Your task to perform on an android device: turn off improve location accuracy Image 0: 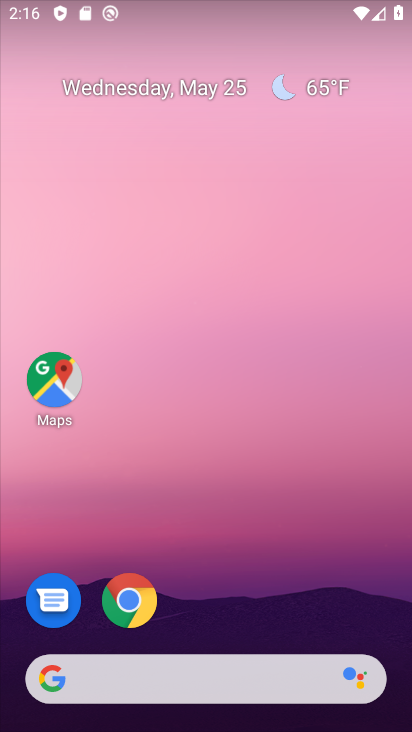
Step 0: drag from (286, 568) to (242, 186)
Your task to perform on an android device: turn off improve location accuracy Image 1: 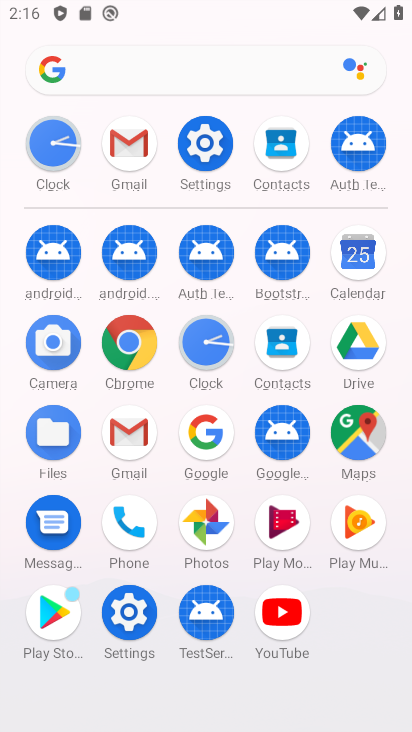
Step 1: click (131, 608)
Your task to perform on an android device: turn off improve location accuracy Image 2: 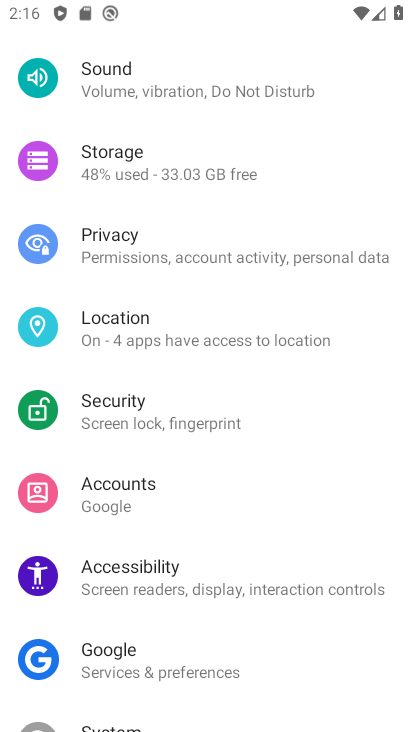
Step 2: drag from (130, 600) to (178, 216)
Your task to perform on an android device: turn off improve location accuracy Image 3: 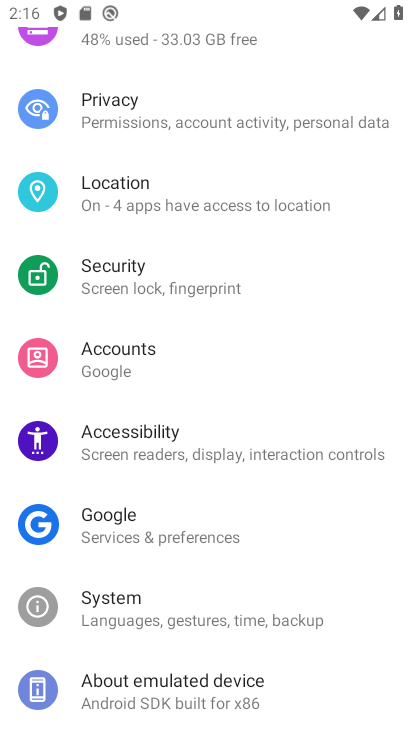
Step 3: drag from (206, 345) to (241, 637)
Your task to perform on an android device: turn off improve location accuracy Image 4: 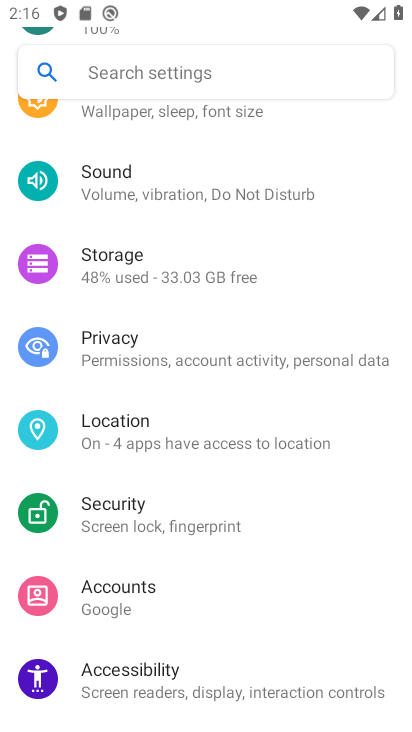
Step 4: drag from (192, 397) to (172, 521)
Your task to perform on an android device: turn off improve location accuracy Image 5: 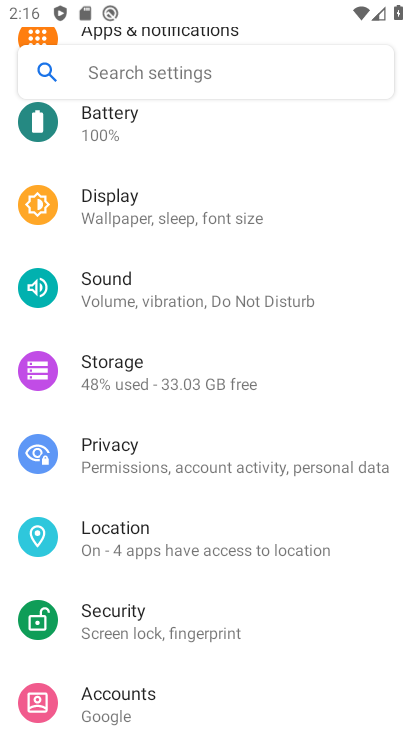
Step 5: click (177, 546)
Your task to perform on an android device: turn off improve location accuracy Image 6: 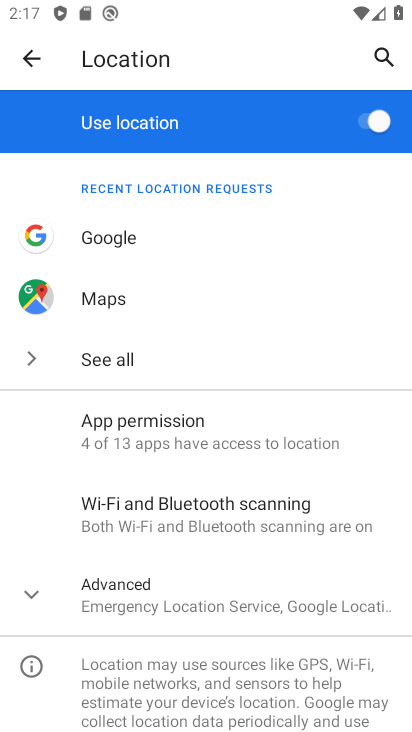
Step 6: click (146, 602)
Your task to perform on an android device: turn off improve location accuracy Image 7: 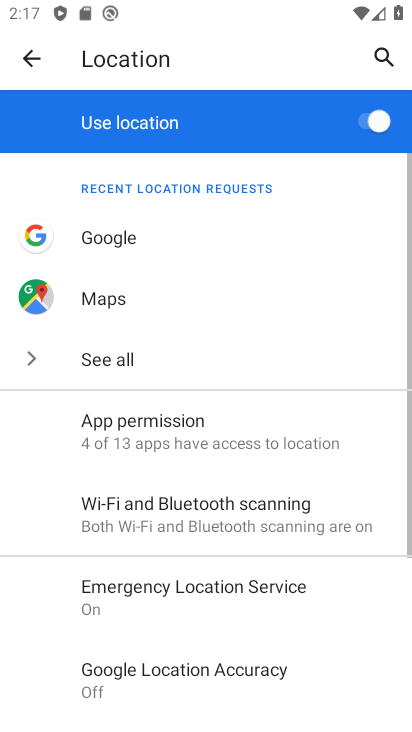
Step 7: drag from (302, 638) to (326, 342)
Your task to perform on an android device: turn off improve location accuracy Image 8: 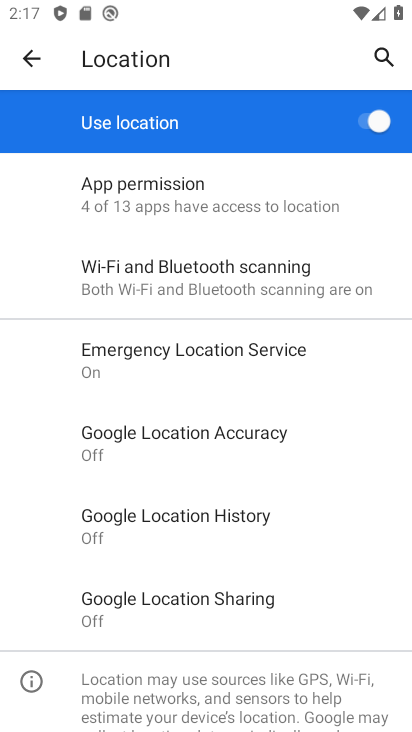
Step 8: click (273, 429)
Your task to perform on an android device: turn off improve location accuracy Image 9: 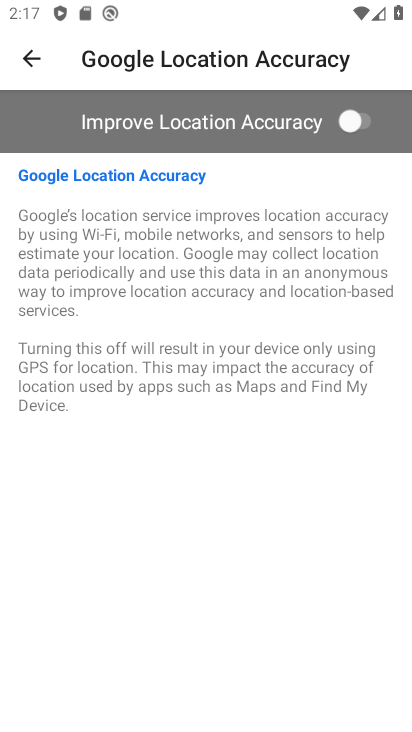
Step 9: task complete